Your task to perform on an android device: Open CNN.com Image 0: 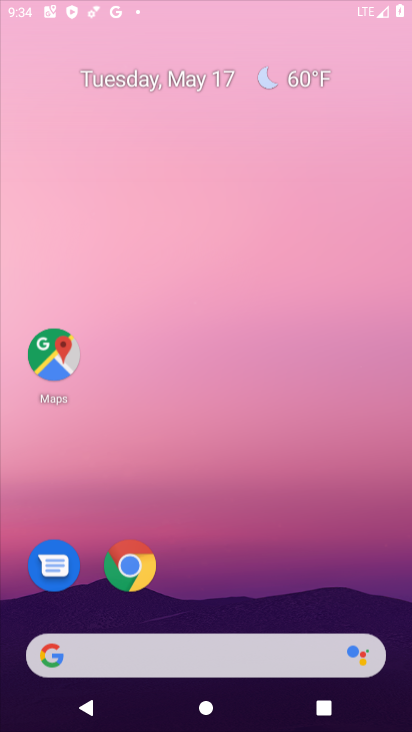
Step 0: drag from (301, 136) to (298, 73)
Your task to perform on an android device: Open CNN.com Image 1: 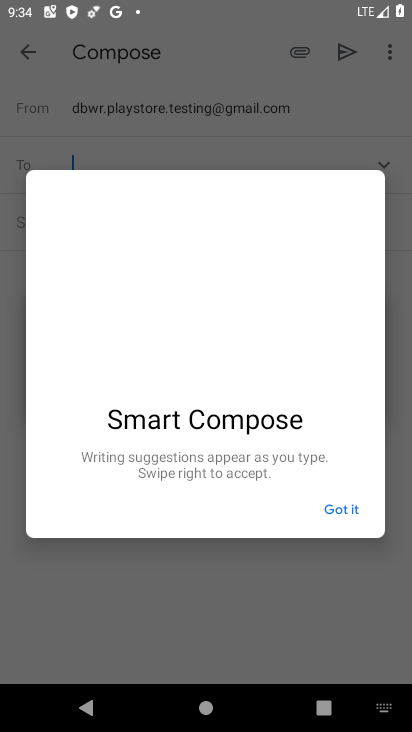
Step 1: press home button
Your task to perform on an android device: Open CNN.com Image 2: 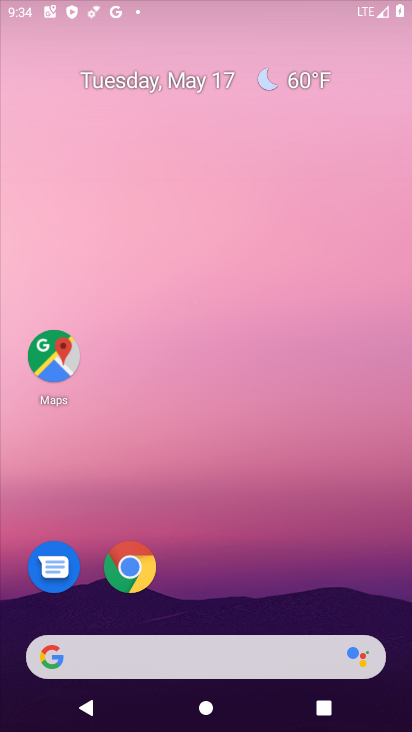
Step 2: drag from (389, 623) to (349, 44)
Your task to perform on an android device: Open CNN.com Image 3: 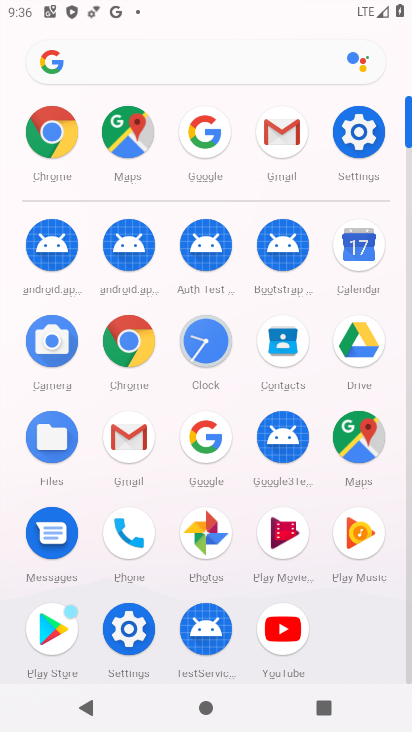
Step 3: click (201, 435)
Your task to perform on an android device: Open CNN.com Image 4: 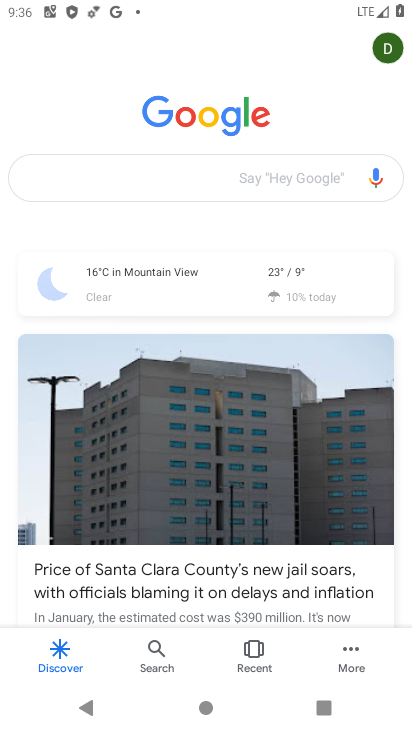
Step 4: click (171, 187)
Your task to perform on an android device: Open CNN.com Image 5: 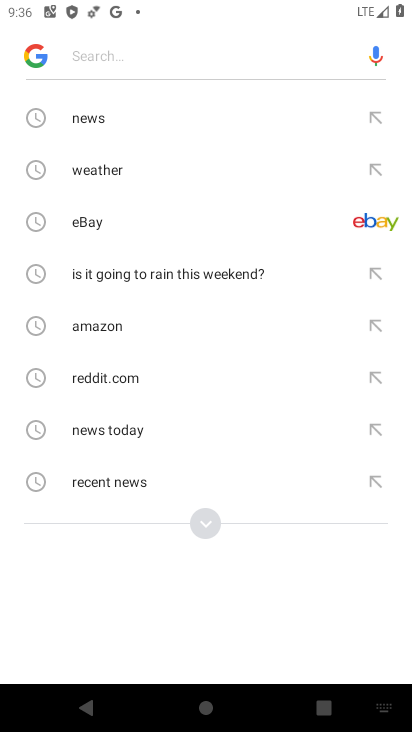
Step 5: click (206, 522)
Your task to perform on an android device: Open CNN.com Image 6: 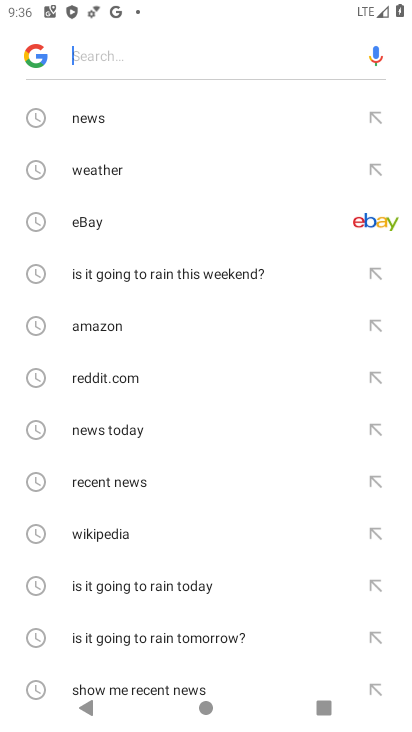
Step 6: drag from (176, 595) to (195, 190)
Your task to perform on an android device: Open CNN.com Image 7: 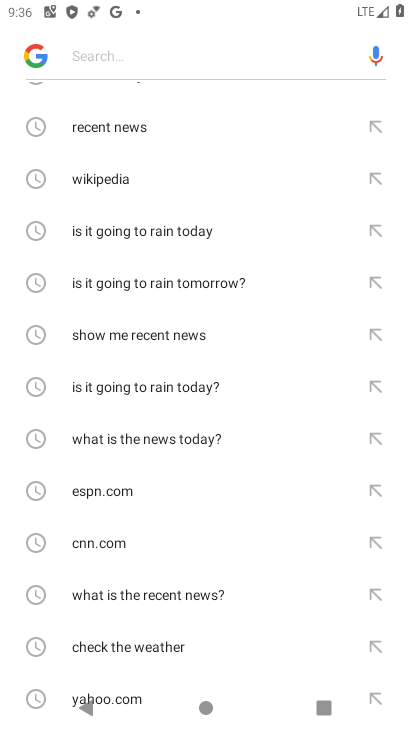
Step 7: click (121, 539)
Your task to perform on an android device: Open CNN.com Image 8: 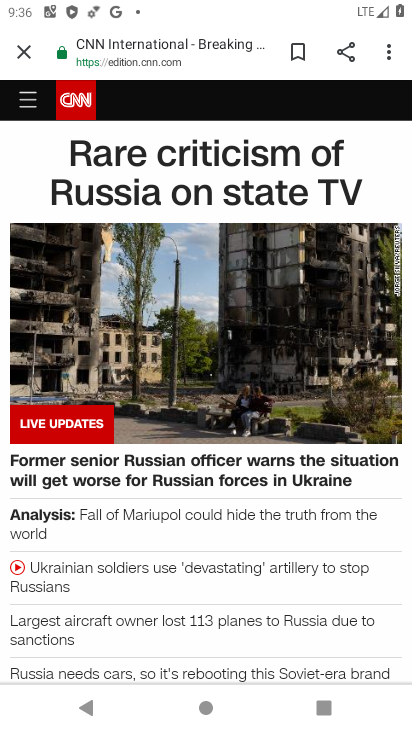
Step 8: task complete